Your task to perform on an android device: Add "logitech g pro" to the cart on newegg, then select checkout. Image 0: 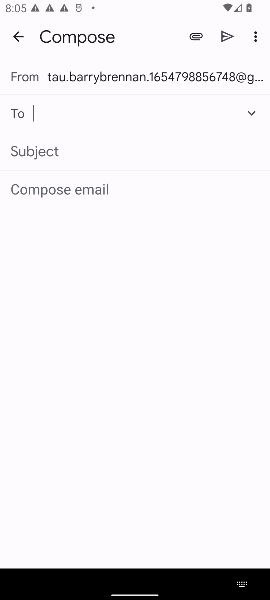
Step 0: press home button
Your task to perform on an android device: Add "logitech g pro" to the cart on newegg, then select checkout. Image 1: 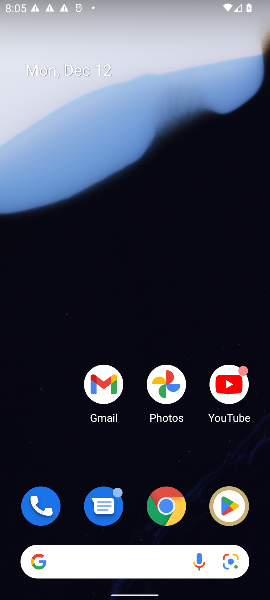
Step 1: click (108, 554)
Your task to perform on an android device: Add "logitech g pro" to the cart on newegg, then select checkout. Image 2: 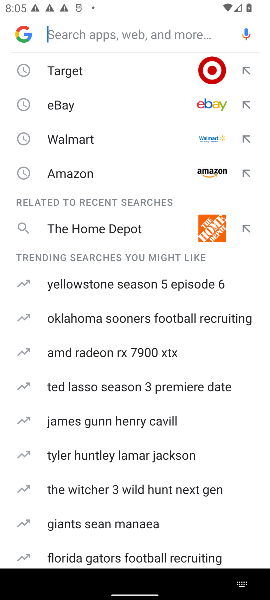
Step 2: type "newegg.com"
Your task to perform on an android device: Add "logitech g pro" to the cart on newegg, then select checkout. Image 3: 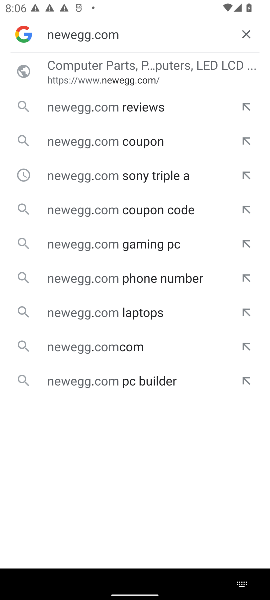
Step 3: click (70, 71)
Your task to perform on an android device: Add "logitech g pro" to the cart on newegg, then select checkout. Image 4: 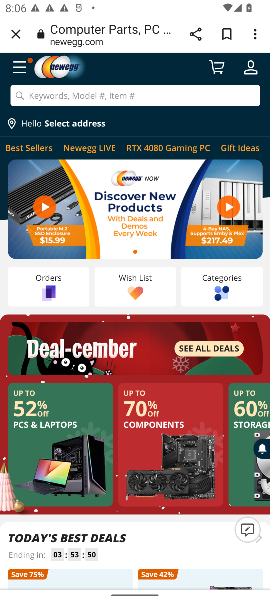
Step 4: click (129, 100)
Your task to perform on an android device: Add "logitech g pro" to the cart on newegg, then select checkout. Image 5: 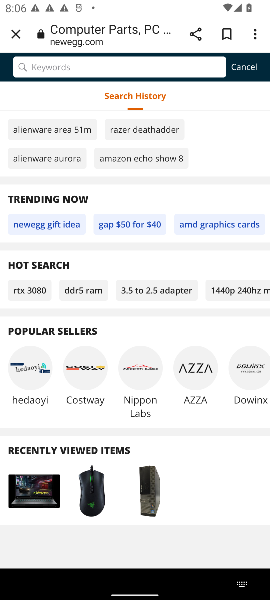
Step 5: type "logitech gpro"
Your task to perform on an android device: Add "logitech g pro" to the cart on newegg, then select checkout. Image 6: 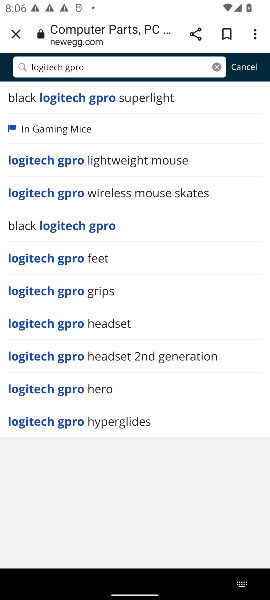
Step 6: click (132, 103)
Your task to perform on an android device: Add "logitech g pro" to the cart on newegg, then select checkout. Image 7: 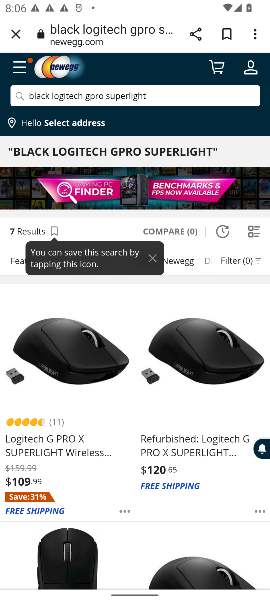
Step 7: click (67, 441)
Your task to perform on an android device: Add "logitech g pro" to the cart on newegg, then select checkout. Image 8: 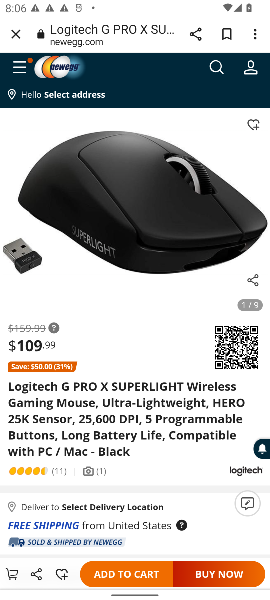
Step 8: click (138, 578)
Your task to perform on an android device: Add "logitech g pro" to the cart on newegg, then select checkout. Image 9: 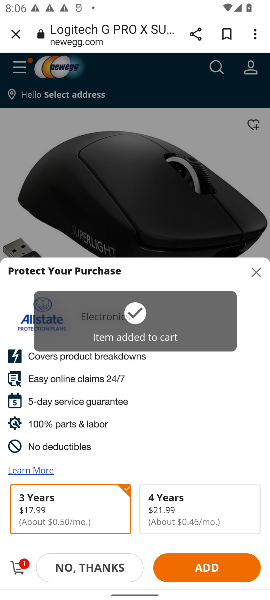
Step 9: task complete